Your task to perform on an android device: install app "DuckDuckGo Privacy Browser" Image 0: 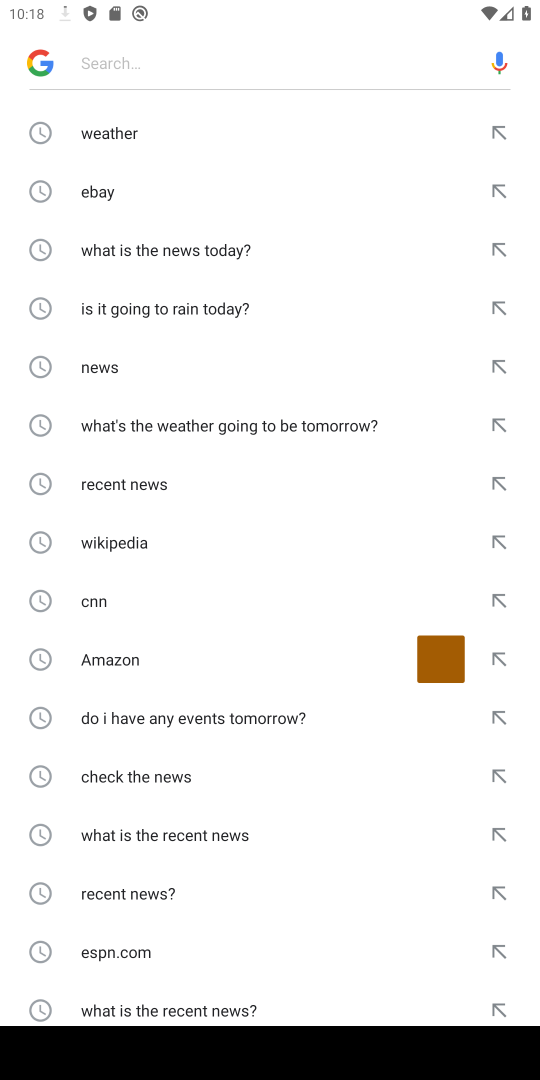
Step 0: click (439, 53)
Your task to perform on an android device: install app "DuckDuckGo Privacy Browser" Image 1: 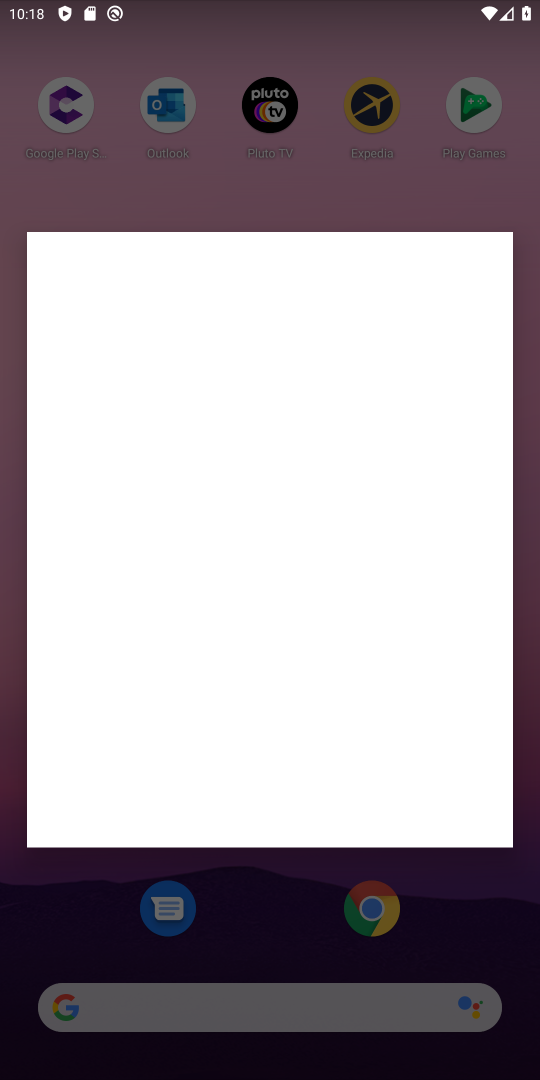
Step 1: press home button
Your task to perform on an android device: install app "DuckDuckGo Privacy Browser" Image 2: 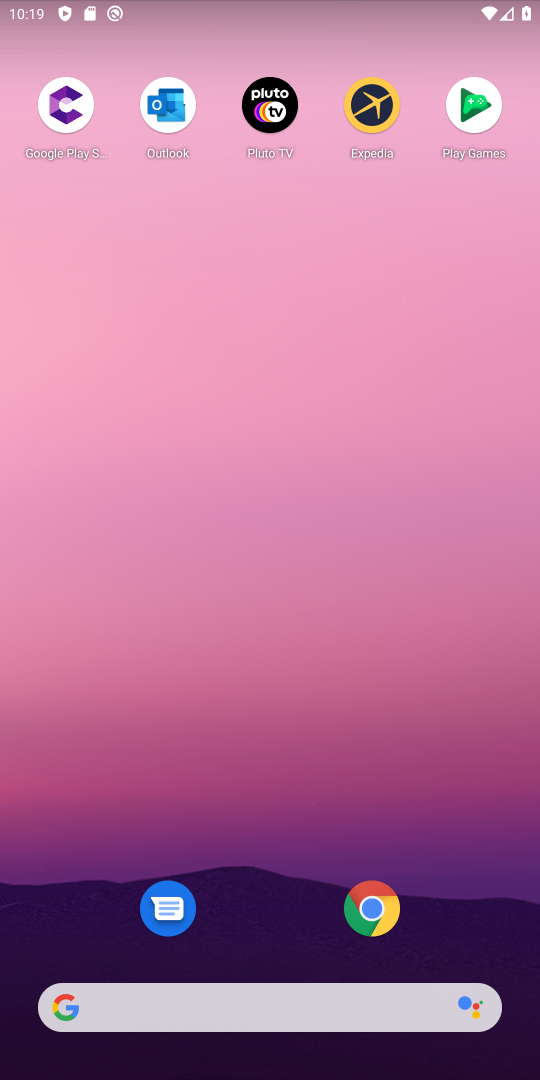
Step 2: drag from (259, 944) to (294, 189)
Your task to perform on an android device: install app "DuckDuckGo Privacy Browser" Image 3: 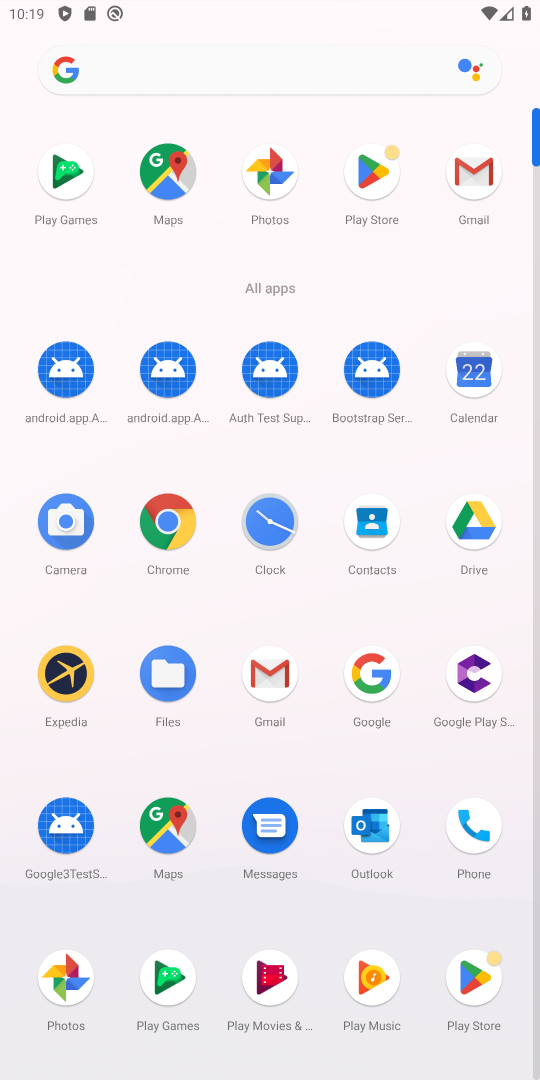
Step 3: click (383, 194)
Your task to perform on an android device: install app "DuckDuckGo Privacy Browser" Image 4: 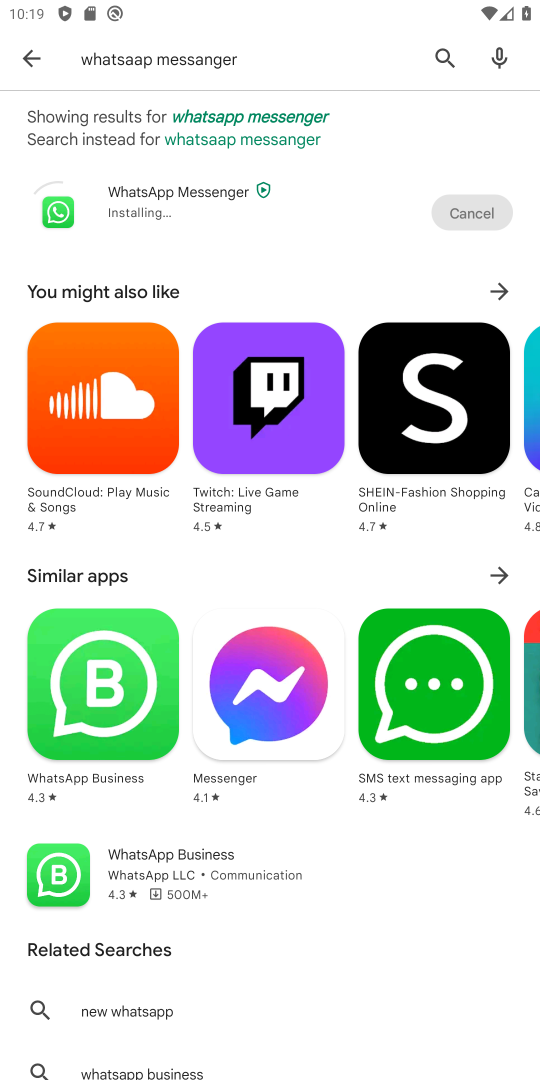
Step 4: click (455, 50)
Your task to perform on an android device: install app "DuckDuckGo Privacy Browser" Image 5: 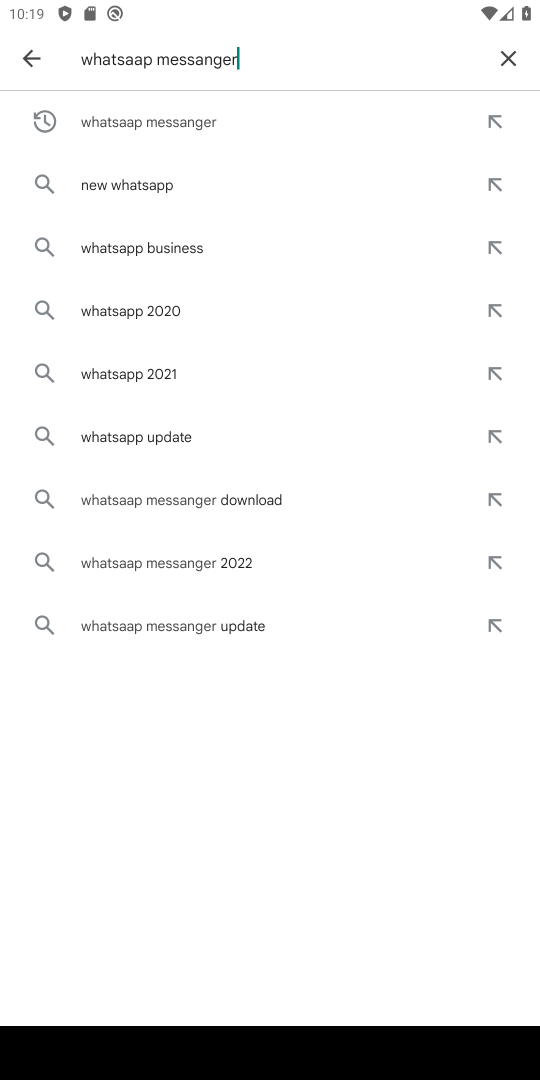
Step 5: click (488, 59)
Your task to perform on an android device: install app "DuckDuckGo Privacy Browser" Image 6: 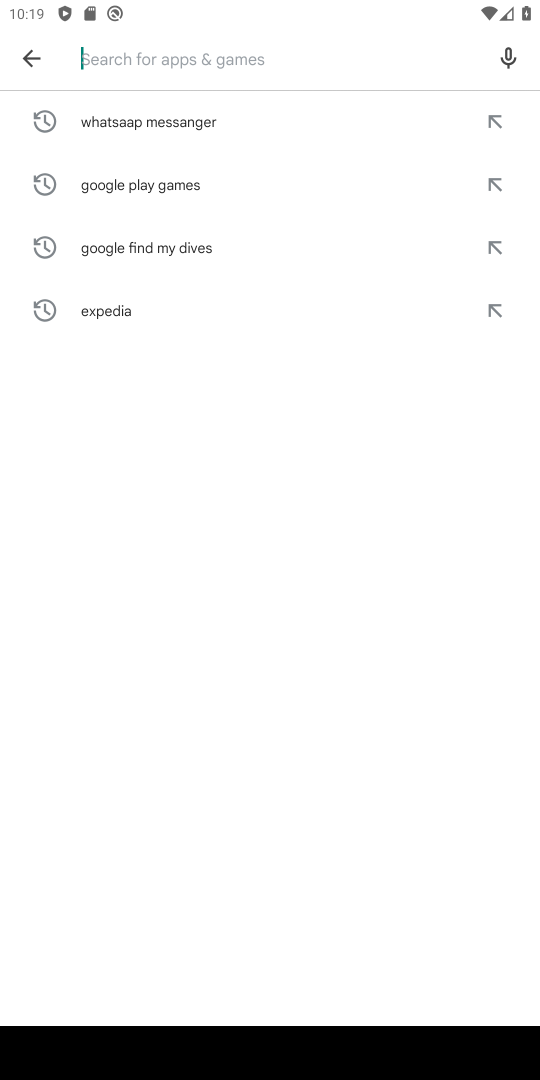
Step 6: type "duck duck go"
Your task to perform on an android device: install app "DuckDuckGo Privacy Browser" Image 7: 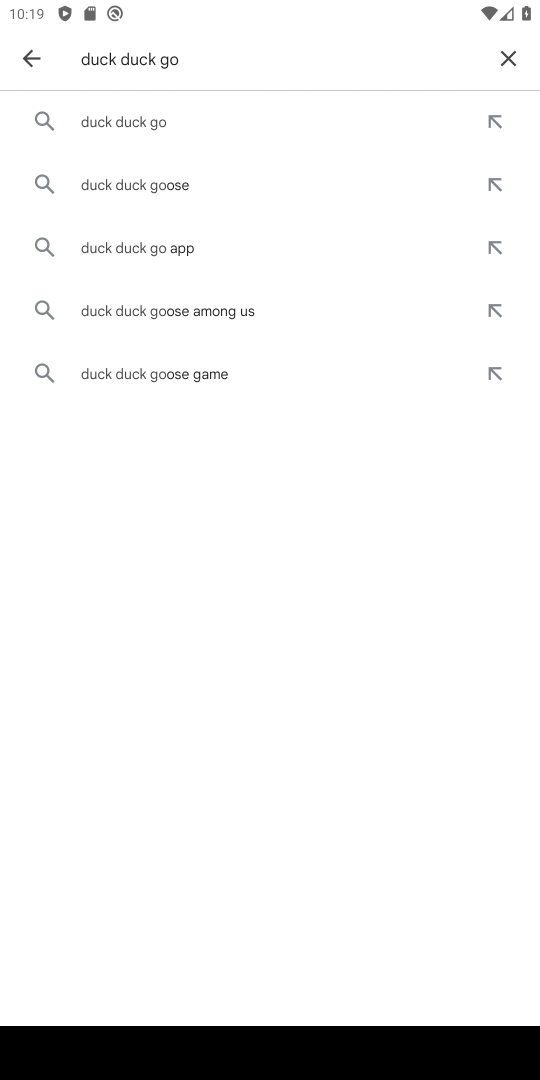
Step 7: click (189, 129)
Your task to perform on an android device: install app "DuckDuckGo Privacy Browser" Image 8: 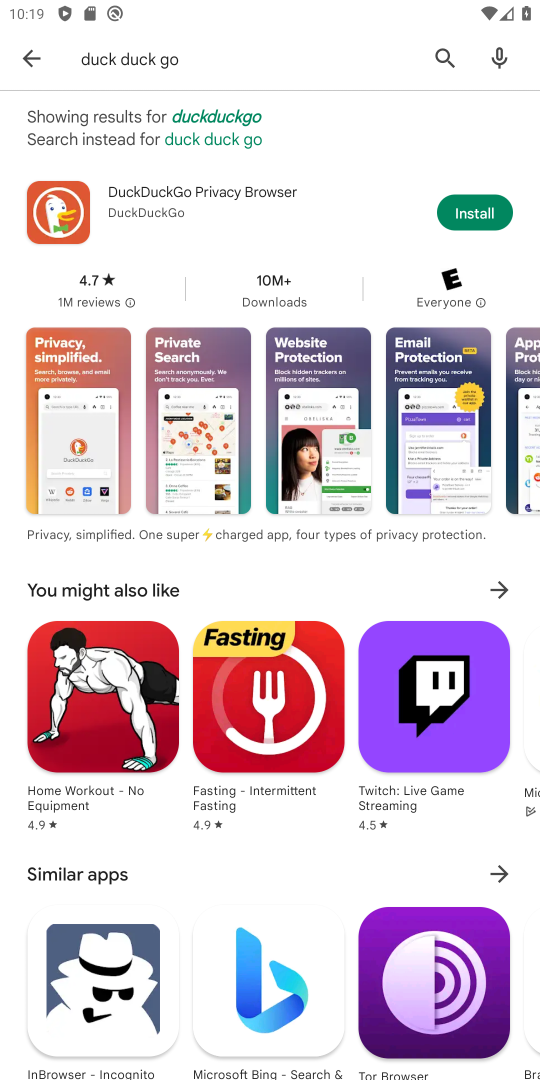
Step 8: click (476, 213)
Your task to perform on an android device: install app "DuckDuckGo Privacy Browser" Image 9: 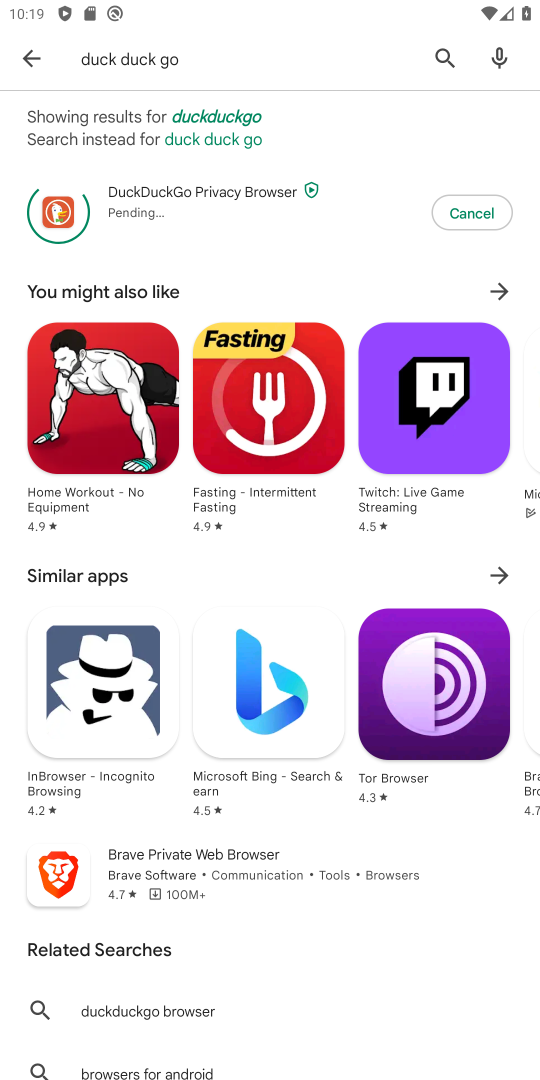
Step 9: task complete